Your task to perform on an android device: toggle airplane mode Image 0: 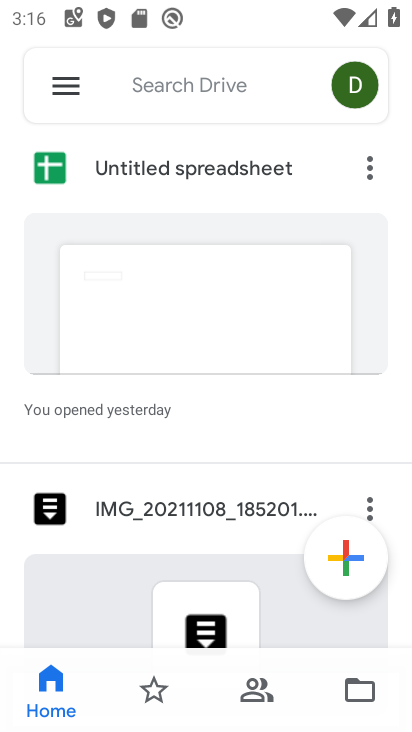
Step 0: press home button
Your task to perform on an android device: toggle airplane mode Image 1: 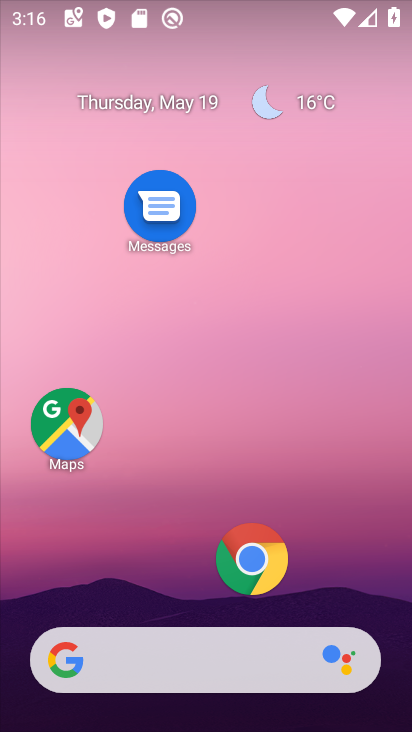
Step 1: drag from (180, 597) to (264, 207)
Your task to perform on an android device: toggle airplane mode Image 2: 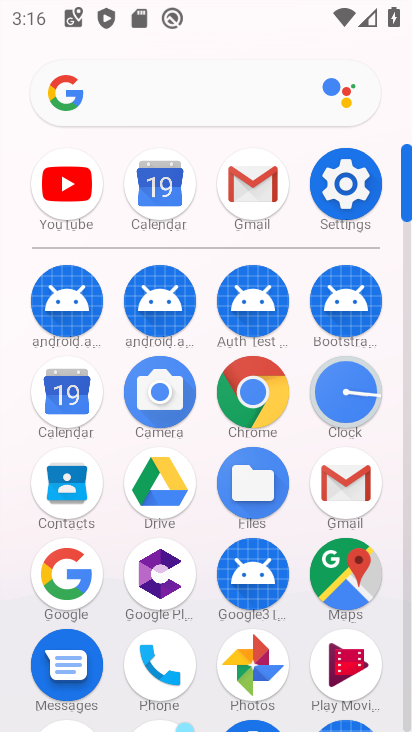
Step 2: click (336, 199)
Your task to perform on an android device: toggle airplane mode Image 3: 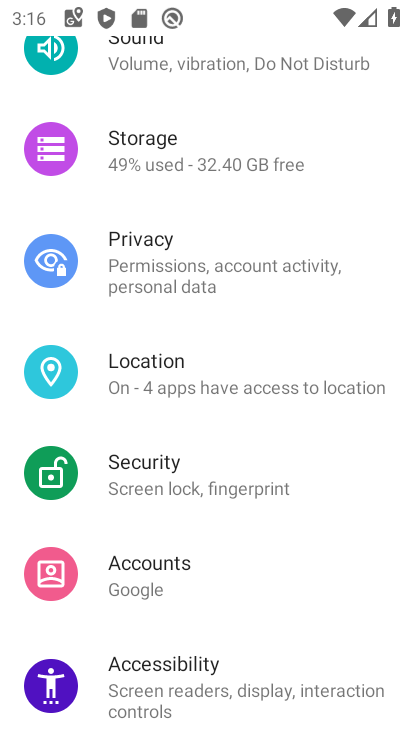
Step 3: drag from (281, 197) to (286, 575)
Your task to perform on an android device: toggle airplane mode Image 4: 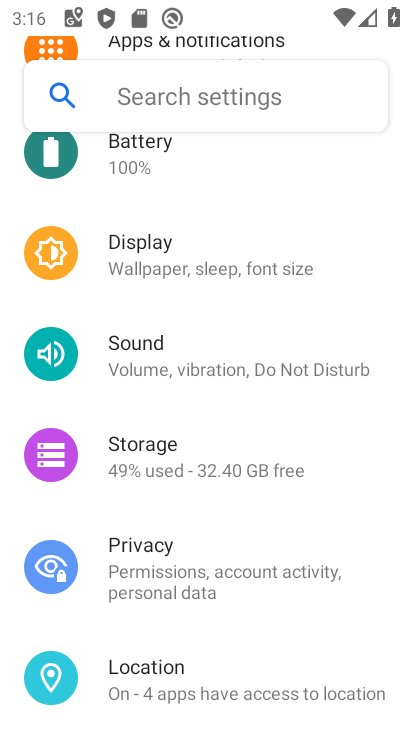
Step 4: drag from (267, 228) to (287, 561)
Your task to perform on an android device: toggle airplane mode Image 5: 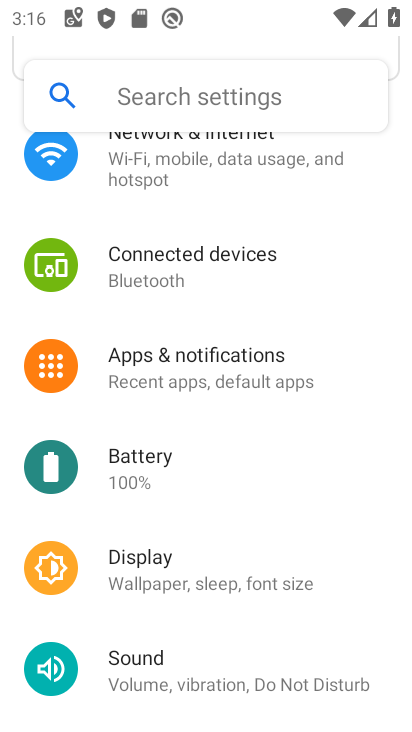
Step 5: drag from (268, 213) to (268, 516)
Your task to perform on an android device: toggle airplane mode Image 6: 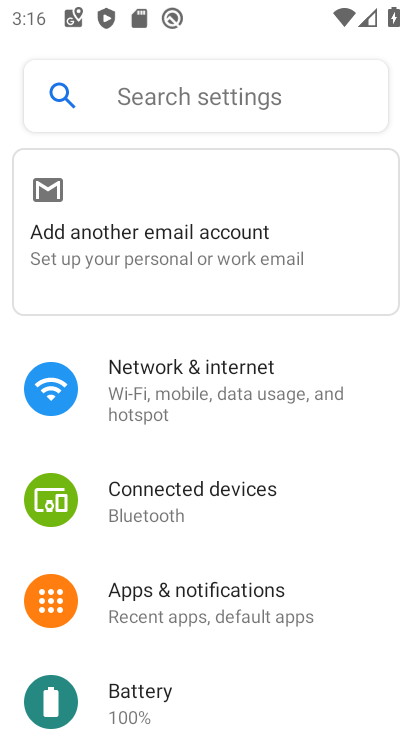
Step 6: click (243, 387)
Your task to perform on an android device: toggle airplane mode Image 7: 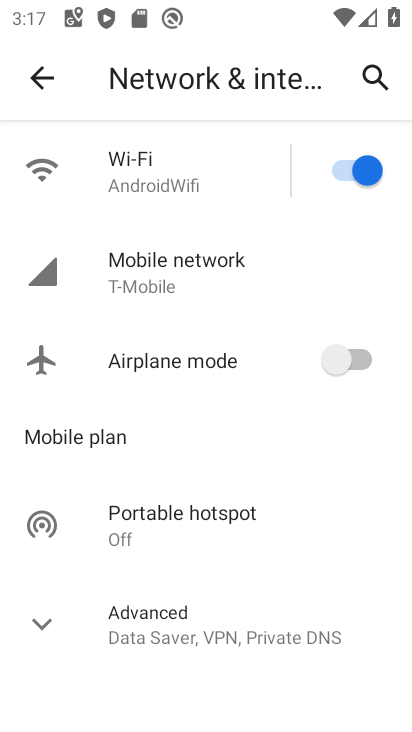
Step 7: click (363, 360)
Your task to perform on an android device: toggle airplane mode Image 8: 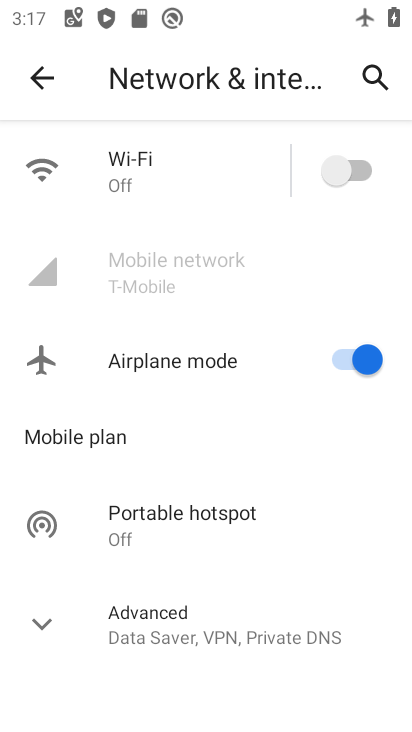
Step 8: task complete